Your task to perform on an android device: turn off notifications in google photos Image 0: 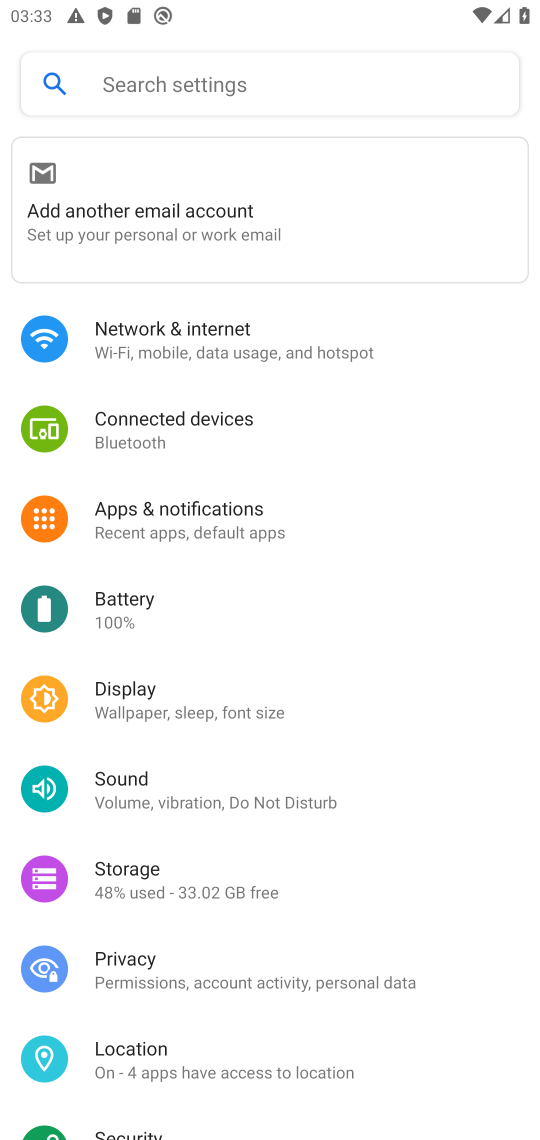
Step 0: press home button
Your task to perform on an android device: turn off notifications in google photos Image 1: 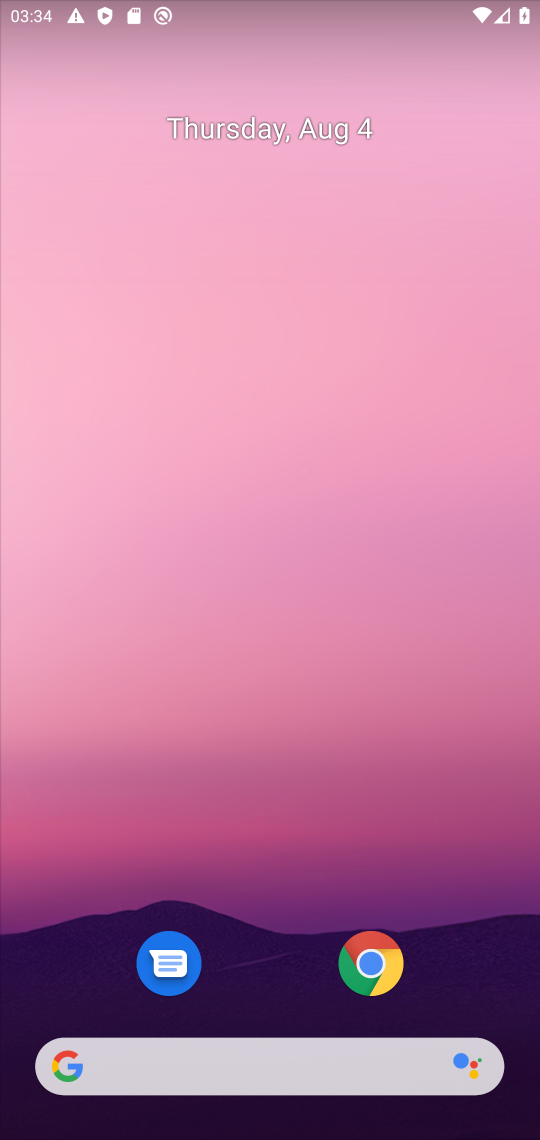
Step 1: drag from (267, 937) to (276, 40)
Your task to perform on an android device: turn off notifications in google photos Image 2: 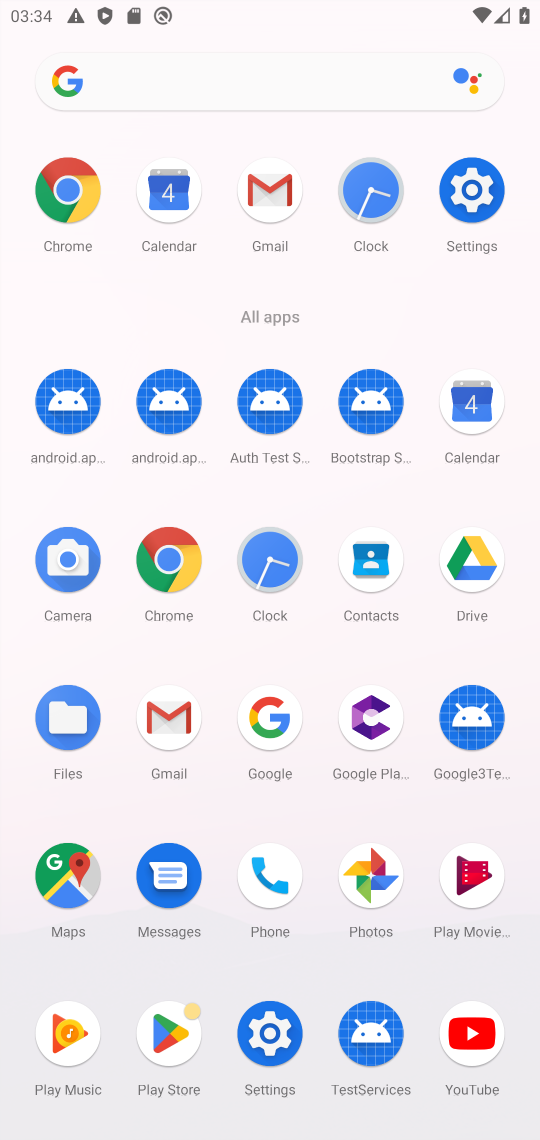
Step 2: click (357, 880)
Your task to perform on an android device: turn off notifications in google photos Image 3: 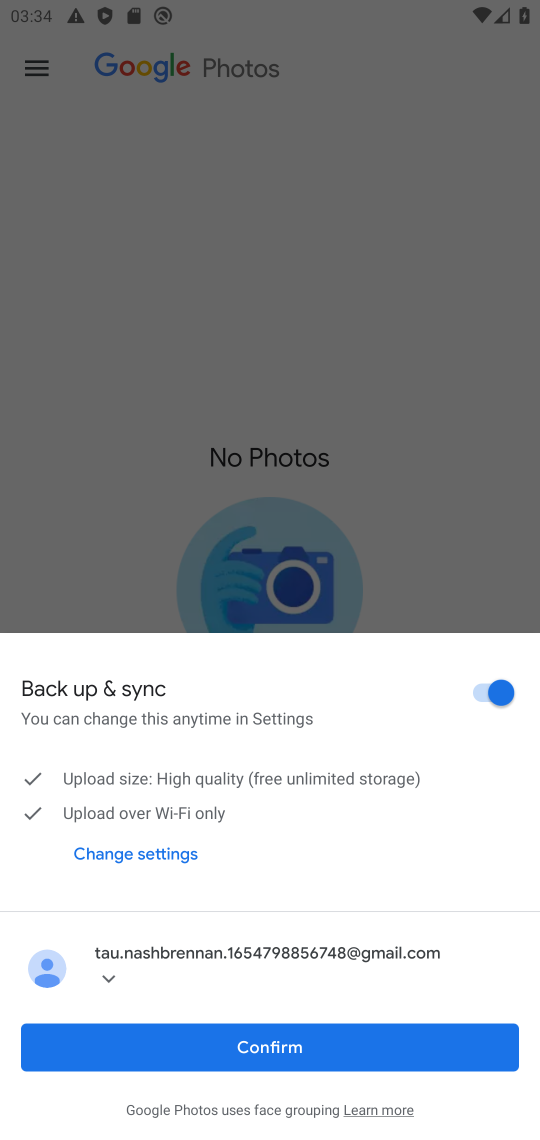
Step 3: click (223, 1049)
Your task to perform on an android device: turn off notifications in google photos Image 4: 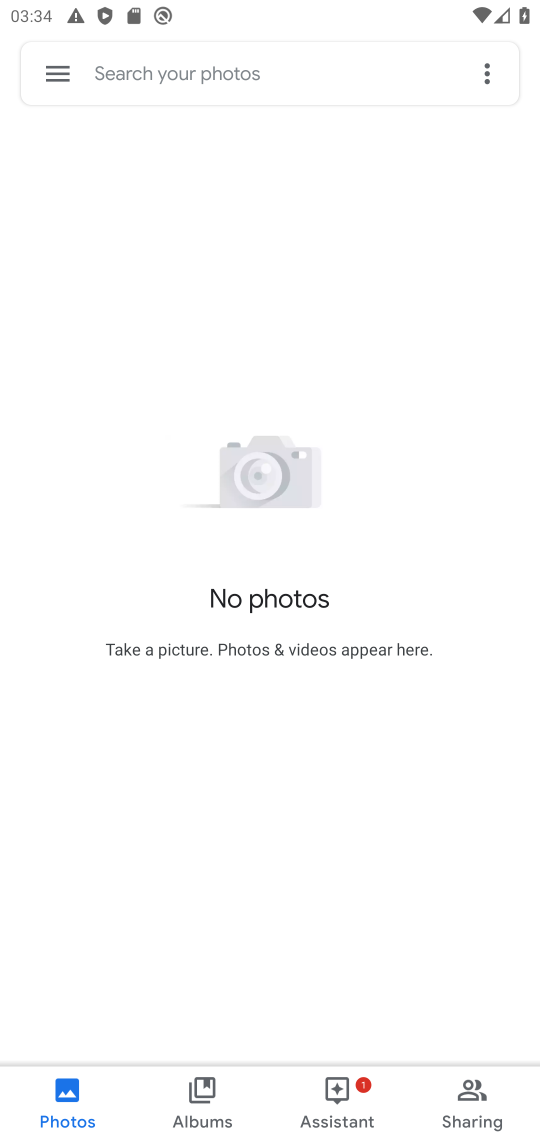
Step 4: click (66, 77)
Your task to perform on an android device: turn off notifications in google photos Image 5: 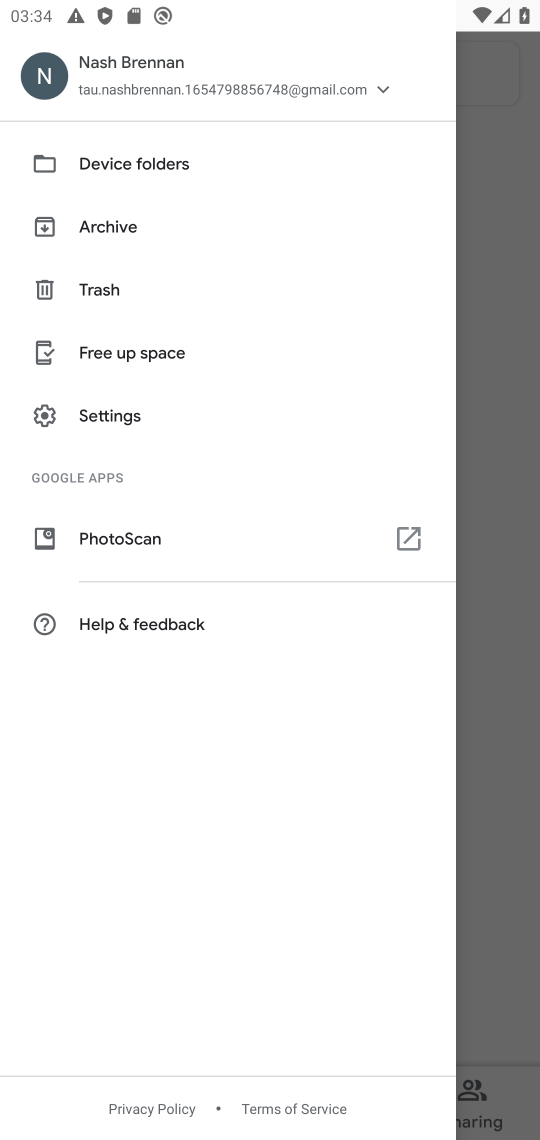
Step 5: click (130, 424)
Your task to perform on an android device: turn off notifications in google photos Image 6: 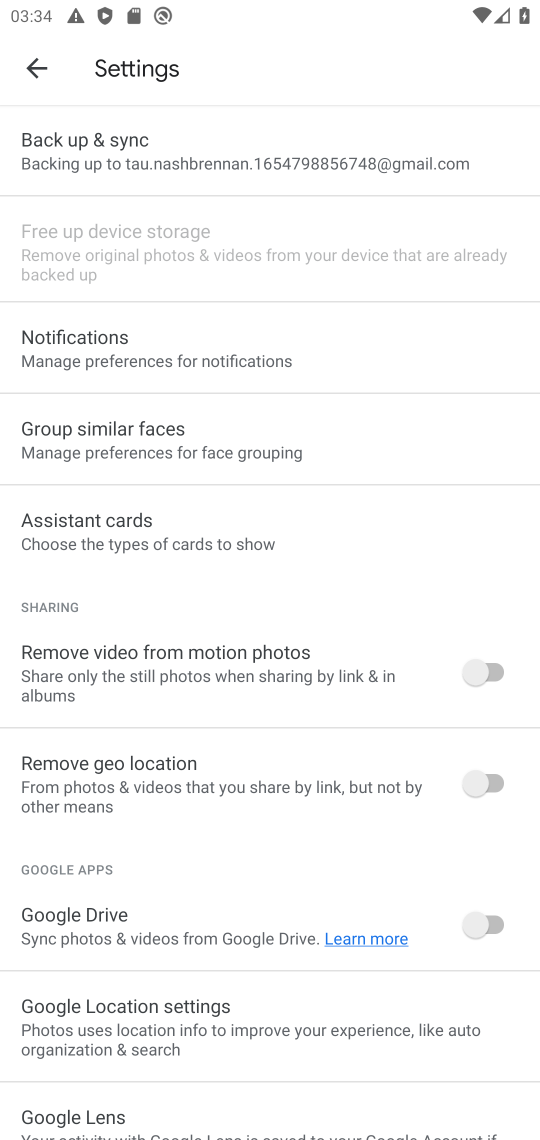
Step 6: click (146, 355)
Your task to perform on an android device: turn off notifications in google photos Image 7: 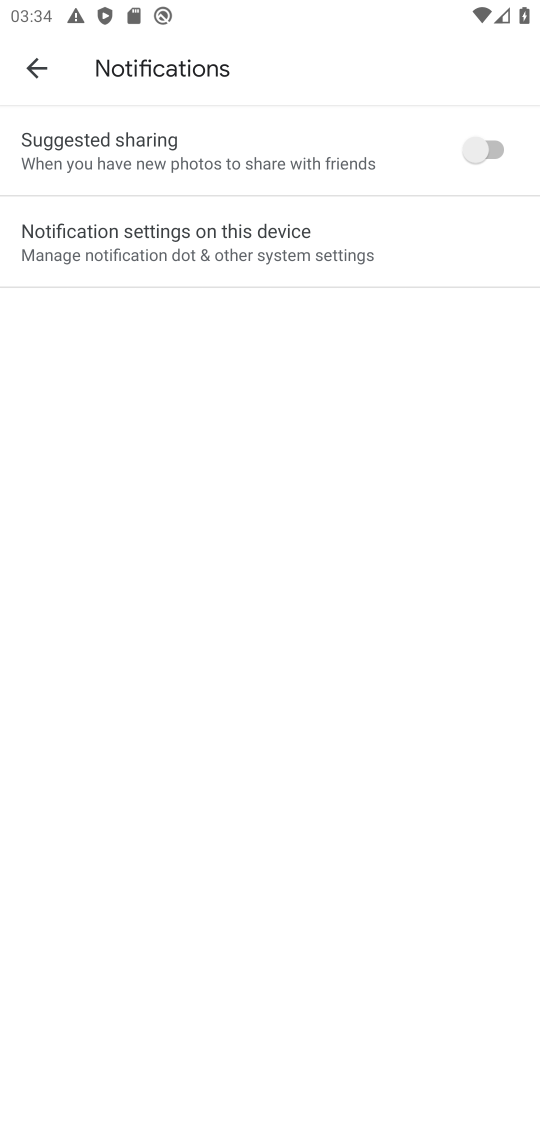
Step 7: click (301, 240)
Your task to perform on an android device: turn off notifications in google photos Image 8: 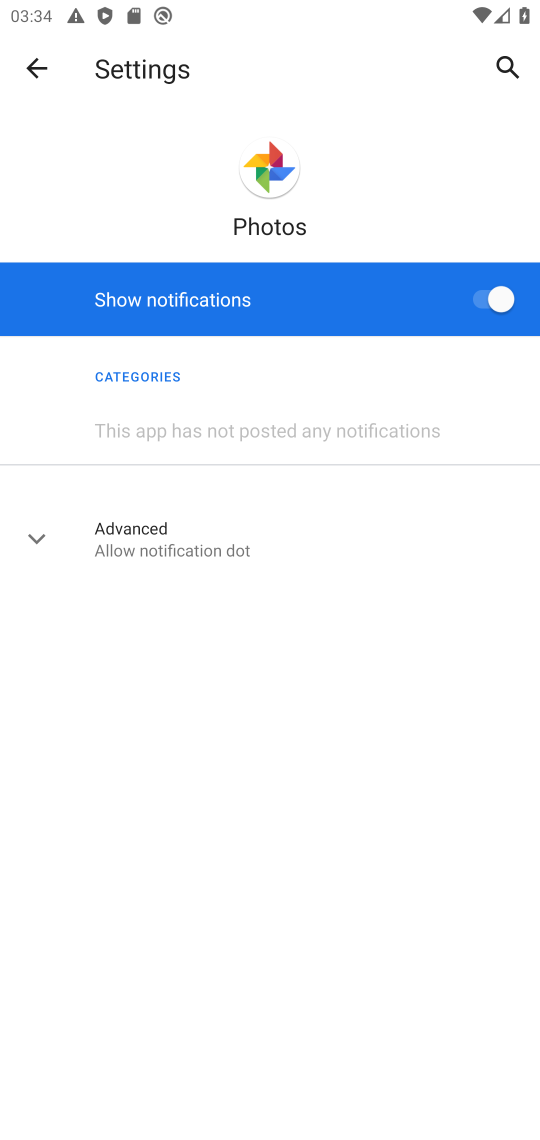
Step 8: click (493, 292)
Your task to perform on an android device: turn off notifications in google photos Image 9: 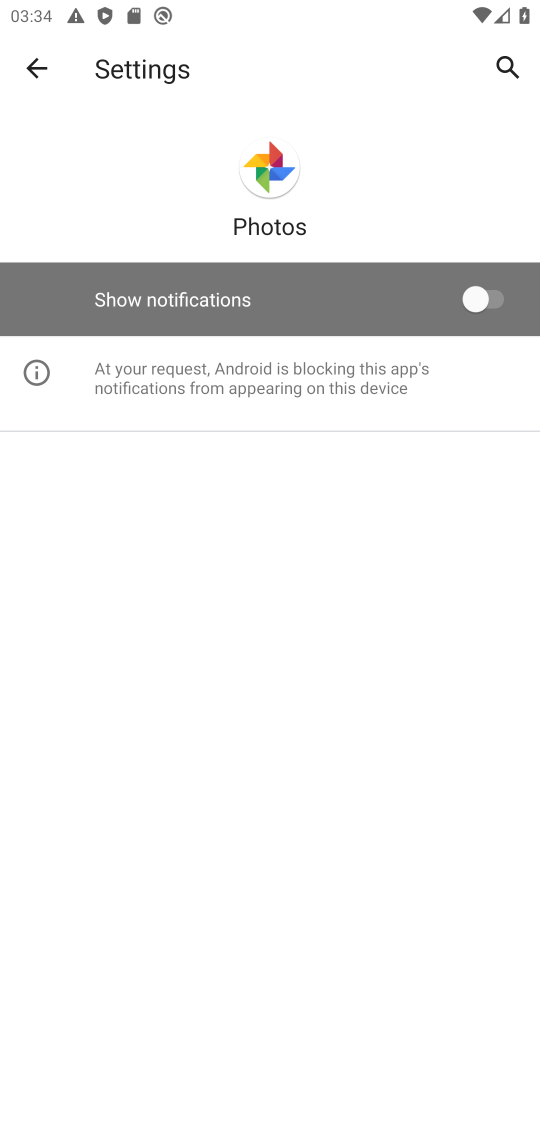
Step 9: task complete